Your task to perform on an android device: What's on the menu at IHOP? Image 0: 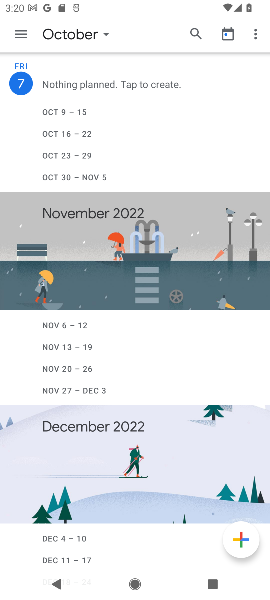
Step 0: press home button
Your task to perform on an android device: What's on the menu at IHOP? Image 1: 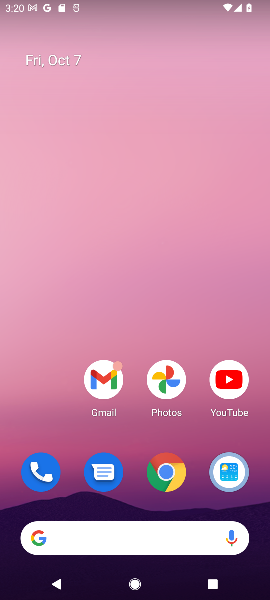
Step 1: click (167, 471)
Your task to perform on an android device: What's on the menu at IHOP? Image 2: 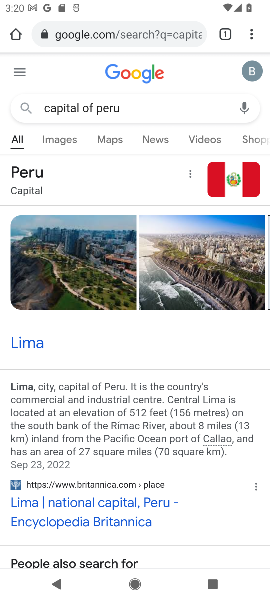
Step 2: click (164, 31)
Your task to perform on an android device: What's on the menu at IHOP? Image 3: 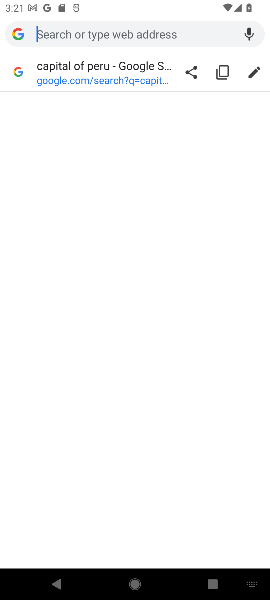
Step 3: type "What's on the menu at IHOP?"
Your task to perform on an android device: What's on the menu at IHOP? Image 4: 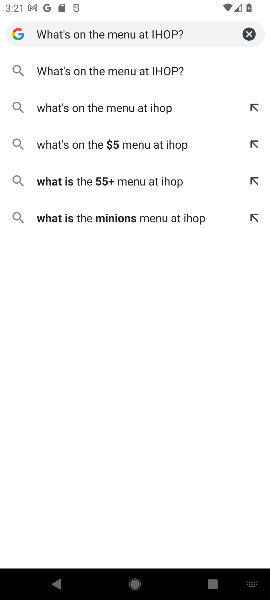
Step 4: click (99, 68)
Your task to perform on an android device: What's on the menu at IHOP? Image 5: 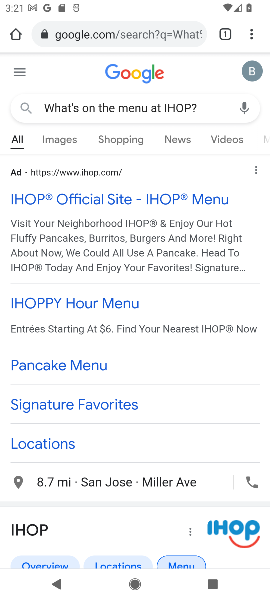
Step 5: drag from (109, 548) to (143, 378)
Your task to perform on an android device: What's on the menu at IHOP? Image 6: 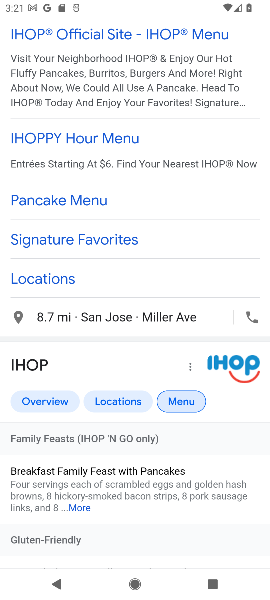
Step 6: drag from (88, 450) to (95, 318)
Your task to perform on an android device: What's on the menu at IHOP? Image 7: 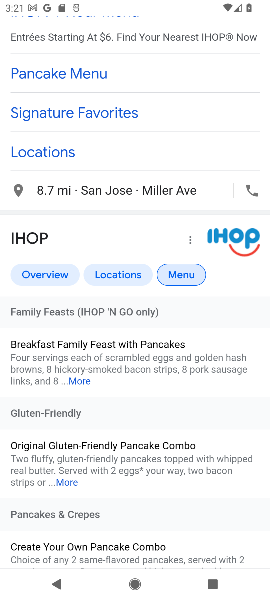
Step 7: drag from (101, 395) to (113, 308)
Your task to perform on an android device: What's on the menu at IHOP? Image 8: 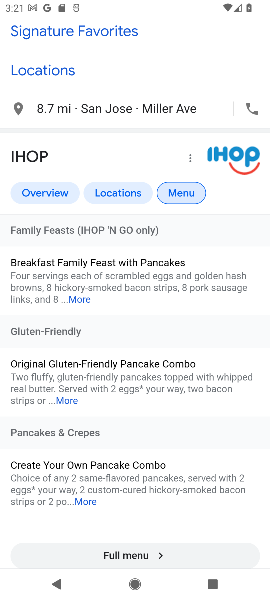
Step 8: drag from (119, 413) to (132, 351)
Your task to perform on an android device: What's on the menu at IHOP? Image 9: 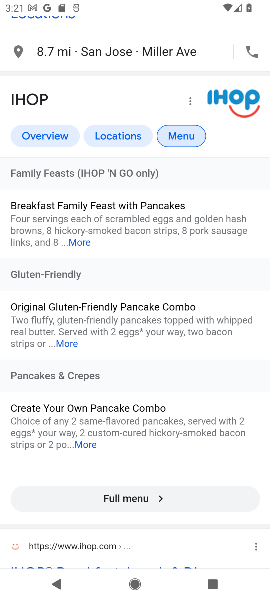
Step 9: click (131, 497)
Your task to perform on an android device: What's on the menu at IHOP? Image 10: 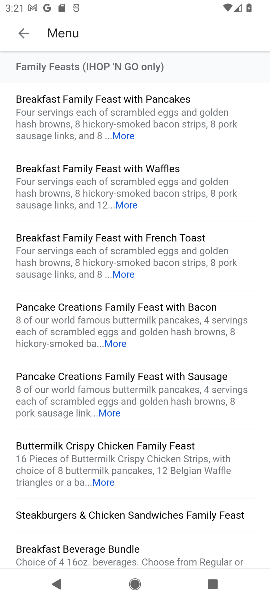
Step 10: task complete